Your task to perform on an android device: turn off wifi Image 0: 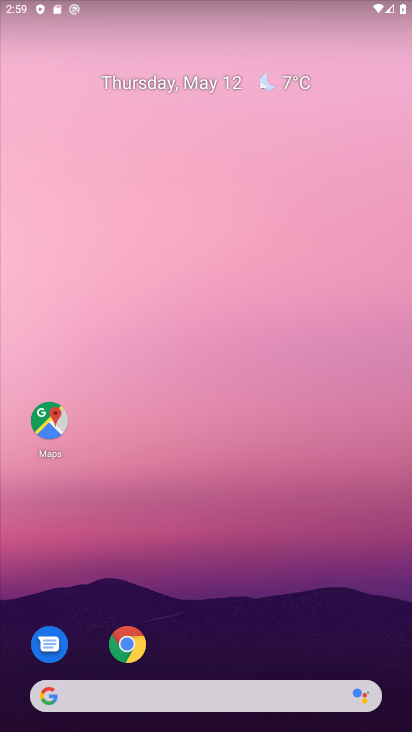
Step 0: drag from (267, 484) to (178, 1)
Your task to perform on an android device: turn off wifi Image 1: 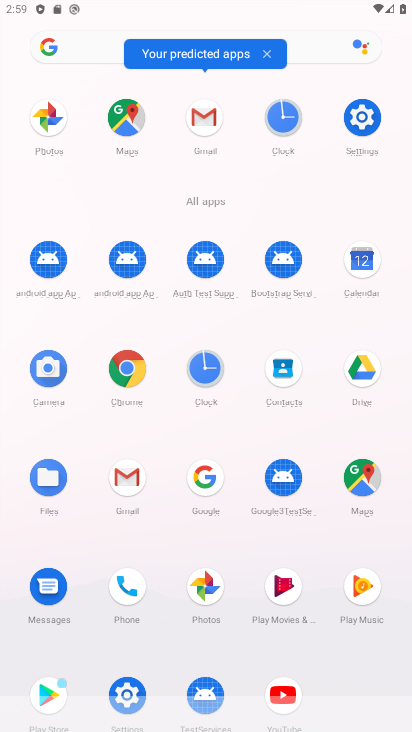
Step 1: click (366, 175)
Your task to perform on an android device: turn off wifi Image 2: 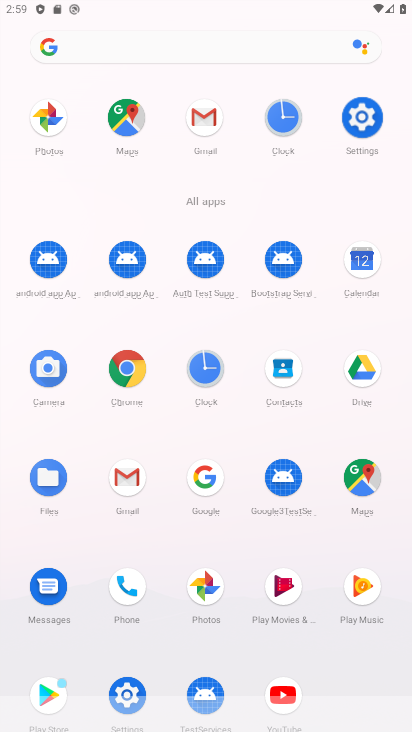
Step 2: click (363, 126)
Your task to perform on an android device: turn off wifi Image 3: 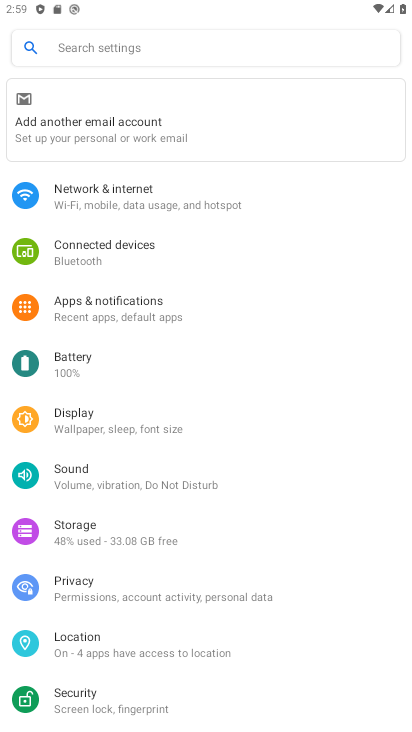
Step 3: click (116, 199)
Your task to perform on an android device: turn off wifi Image 4: 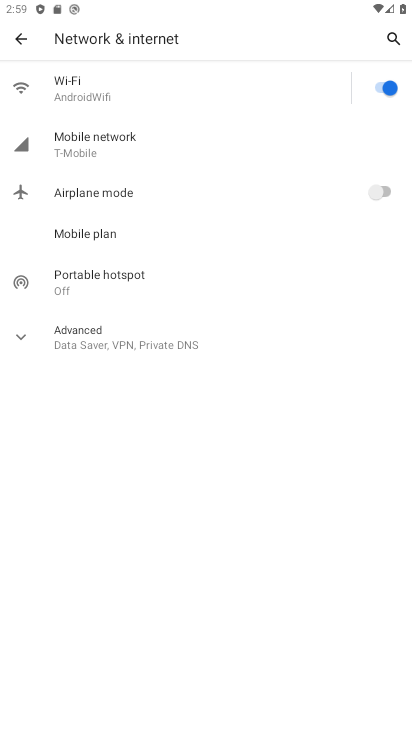
Step 4: click (391, 82)
Your task to perform on an android device: turn off wifi Image 5: 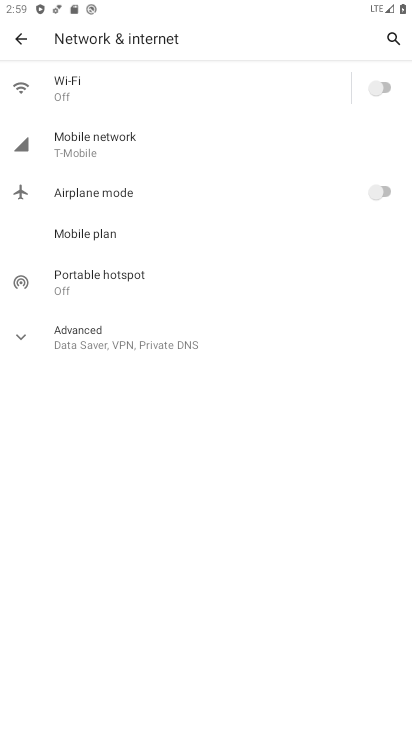
Step 5: task complete